Your task to perform on an android device: Check the weather Image 0: 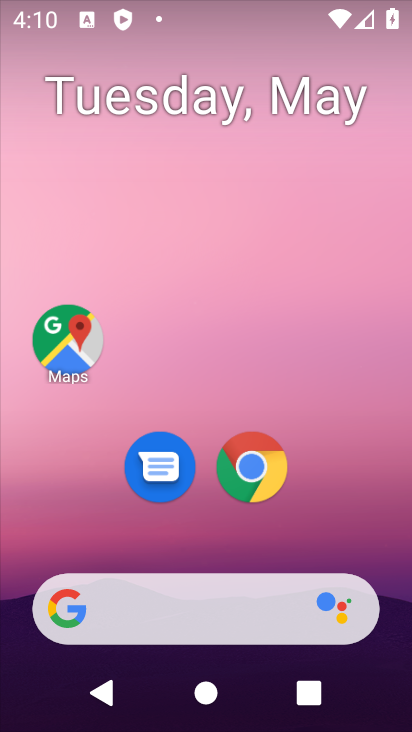
Step 0: click (265, 611)
Your task to perform on an android device: Check the weather Image 1: 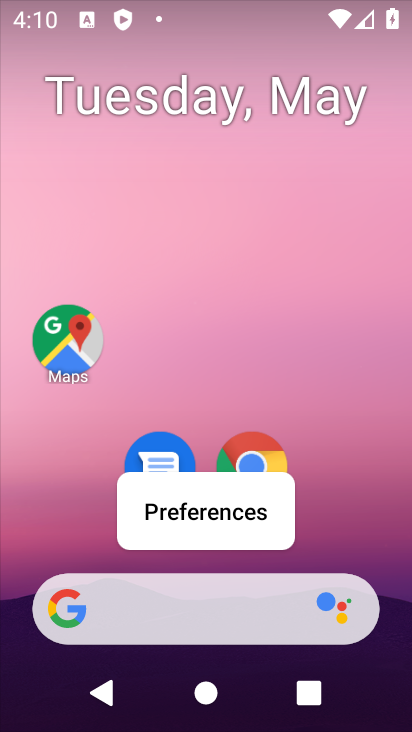
Step 1: click (152, 606)
Your task to perform on an android device: Check the weather Image 2: 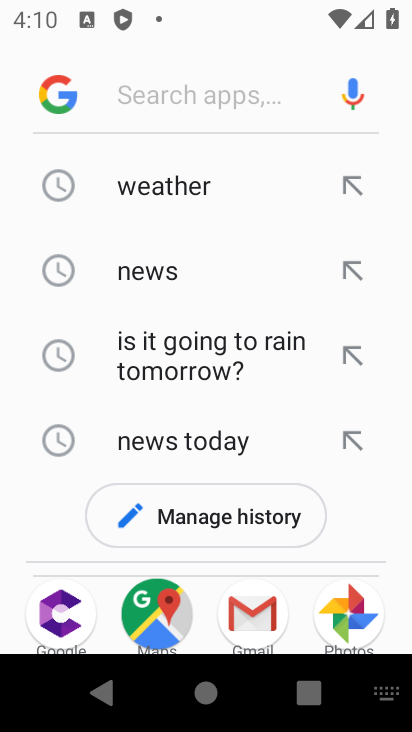
Step 2: click (189, 191)
Your task to perform on an android device: Check the weather Image 3: 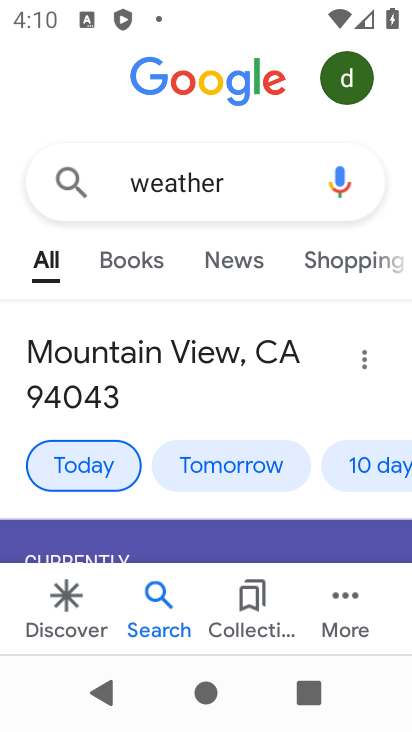
Step 3: task complete